Your task to perform on an android device: What's the price of the LG TV? Image 0: 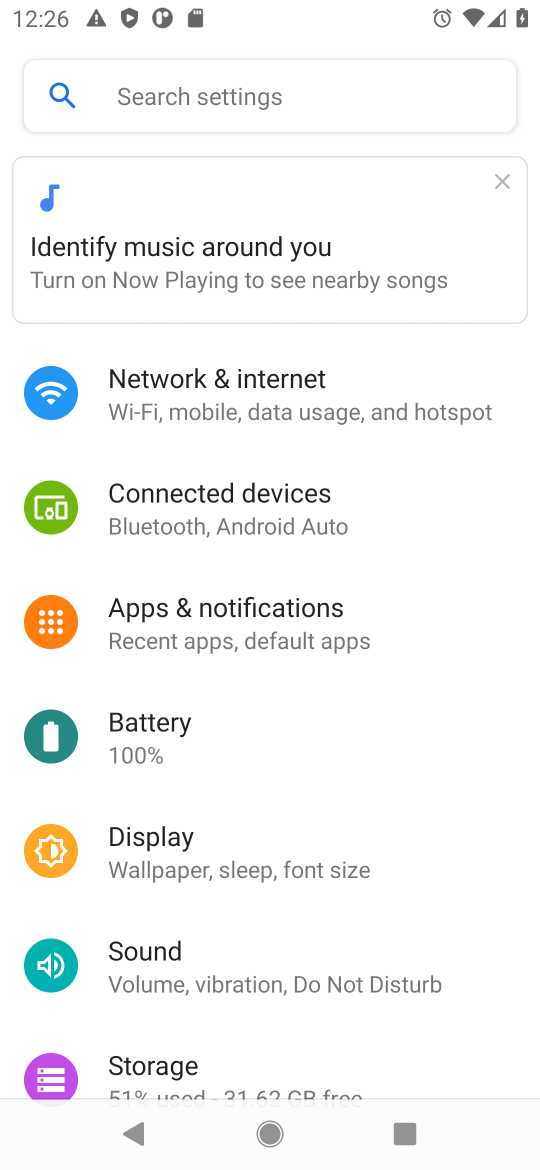
Step 0: press home button
Your task to perform on an android device: What's the price of the LG TV? Image 1: 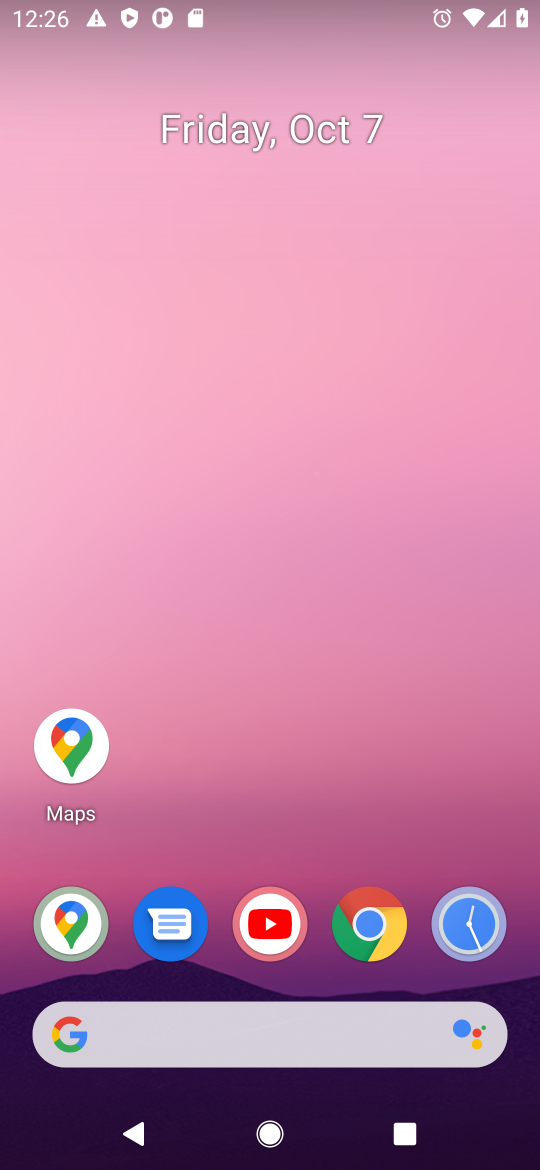
Step 1: click (371, 932)
Your task to perform on an android device: What's the price of the LG TV? Image 2: 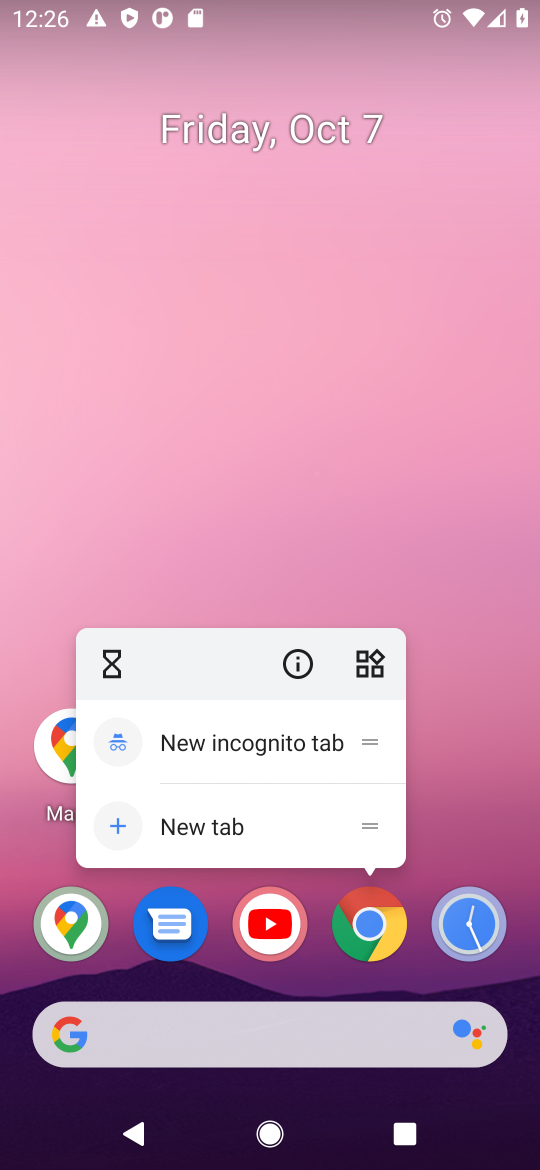
Step 2: click (371, 932)
Your task to perform on an android device: What's the price of the LG TV? Image 3: 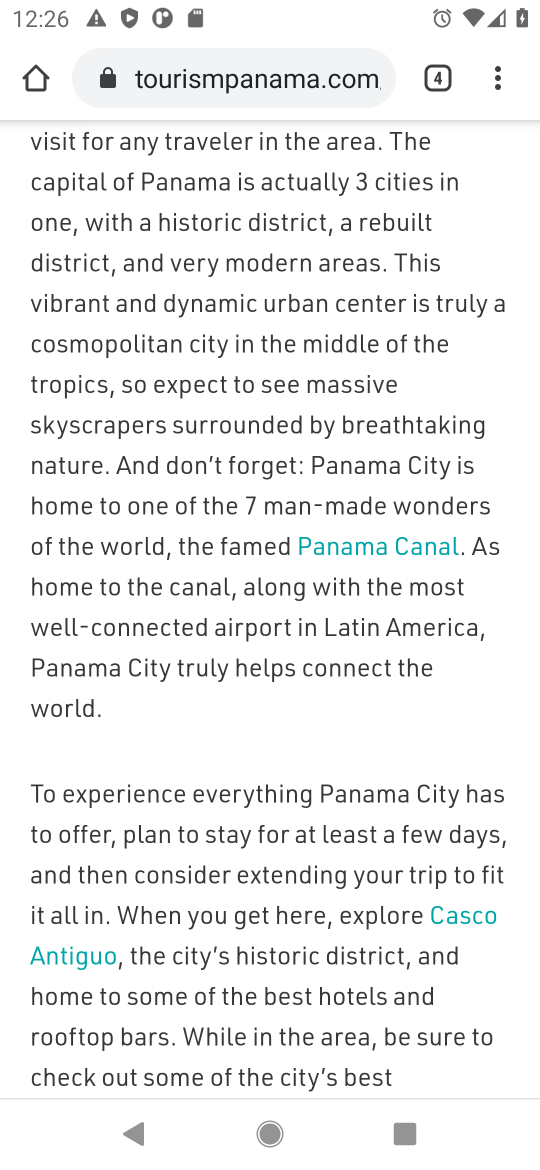
Step 3: click (317, 80)
Your task to perform on an android device: What's the price of the LG TV? Image 4: 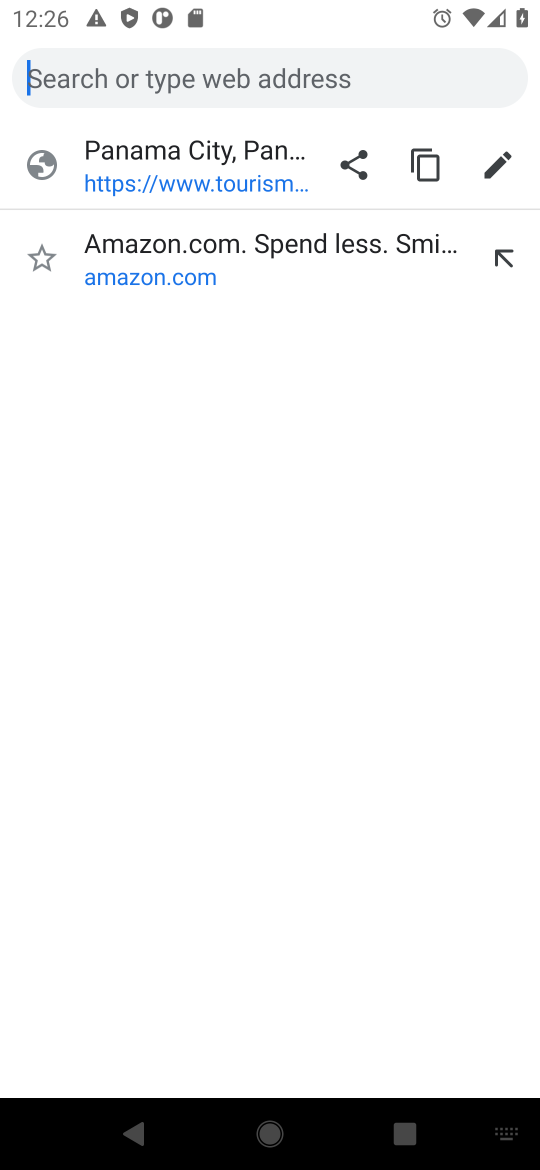
Step 4: type "price of the LG TV"
Your task to perform on an android device: What's the price of the LG TV? Image 5: 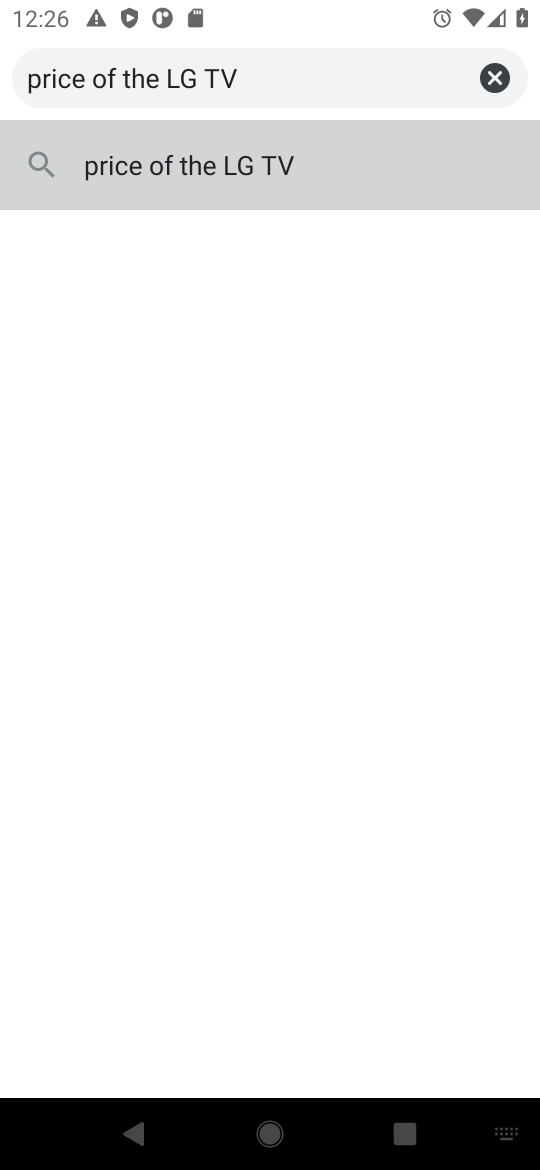
Step 5: click (236, 179)
Your task to perform on an android device: What's the price of the LG TV? Image 6: 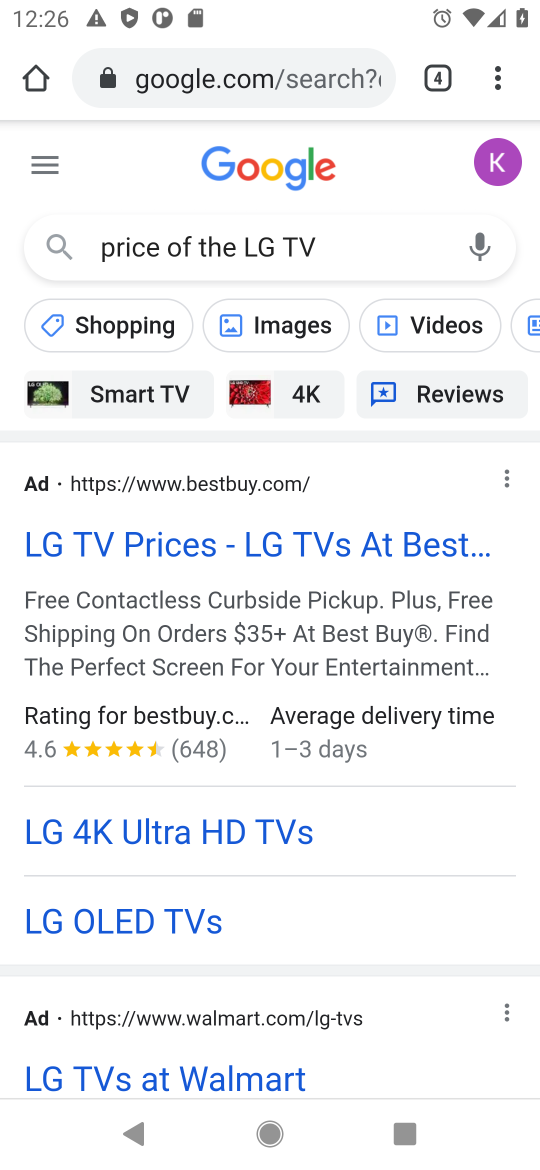
Step 6: click (279, 540)
Your task to perform on an android device: What's the price of the LG TV? Image 7: 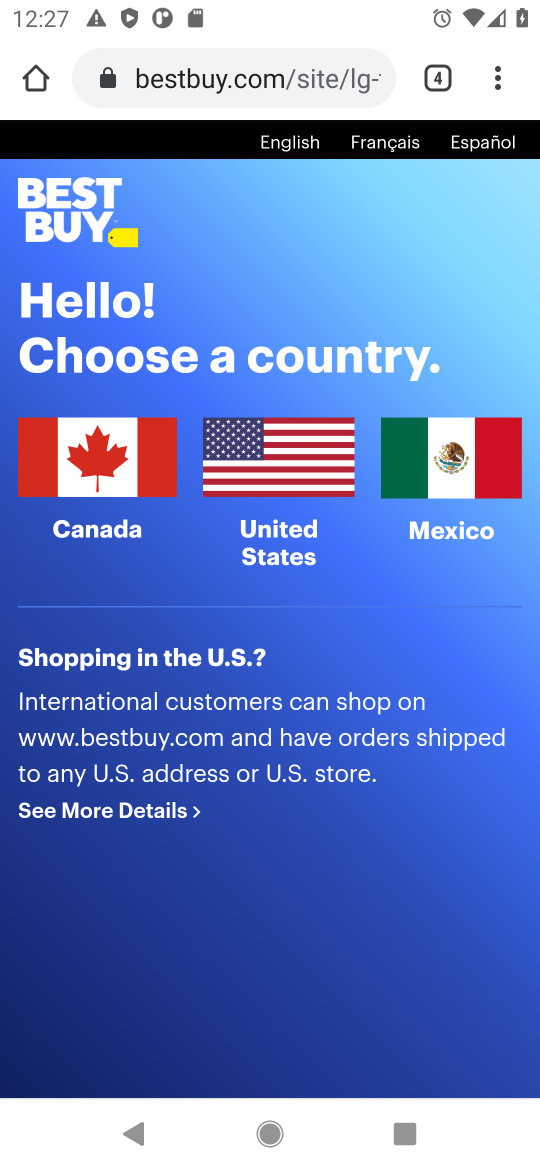
Step 7: drag from (281, 993) to (434, 205)
Your task to perform on an android device: What's the price of the LG TV? Image 8: 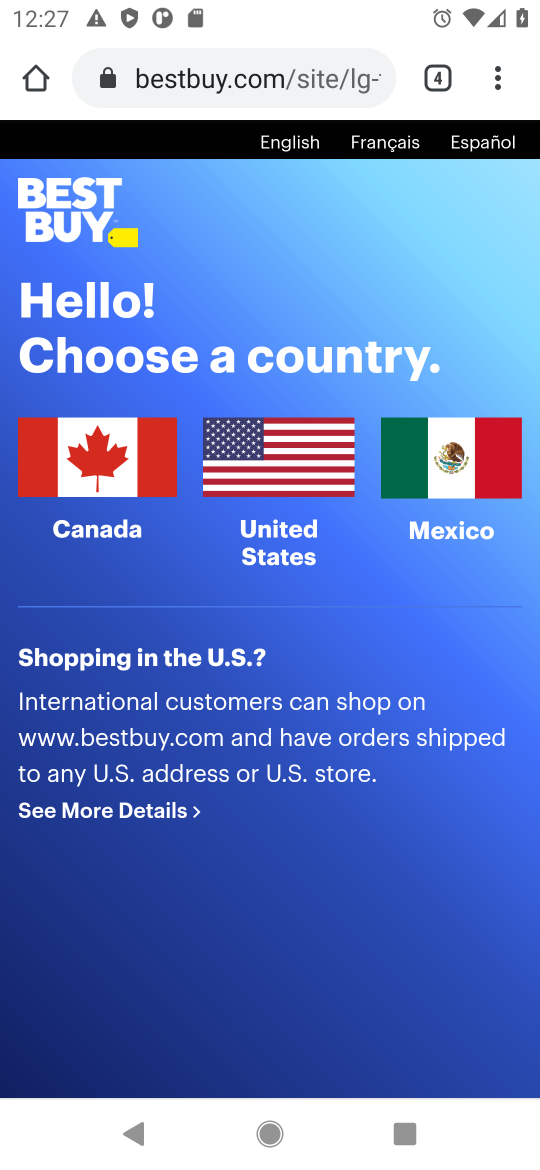
Step 8: click (275, 488)
Your task to perform on an android device: What's the price of the LG TV? Image 9: 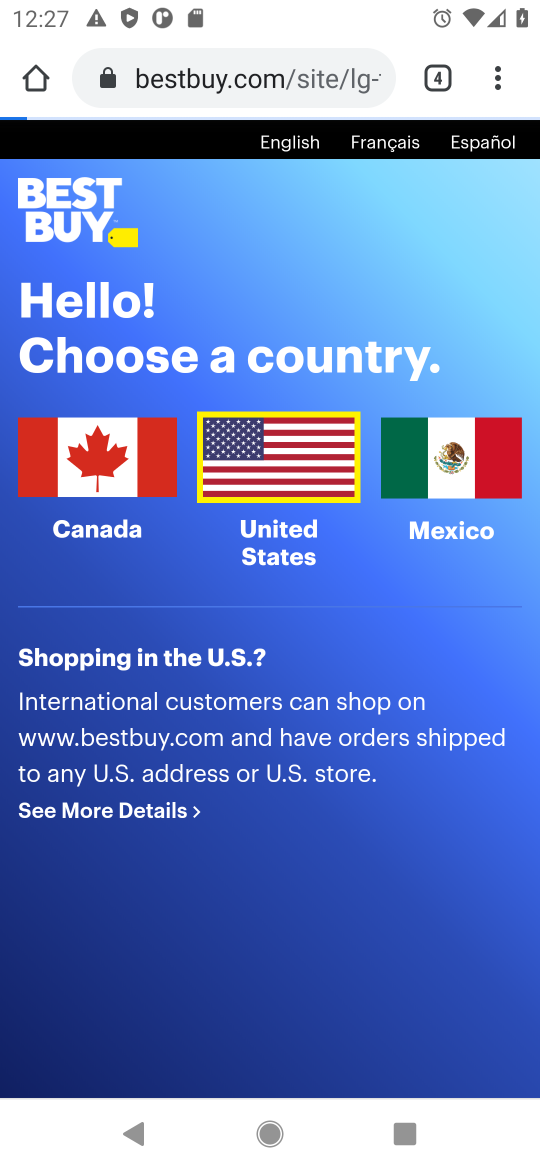
Step 9: click (274, 462)
Your task to perform on an android device: What's the price of the LG TV? Image 10: 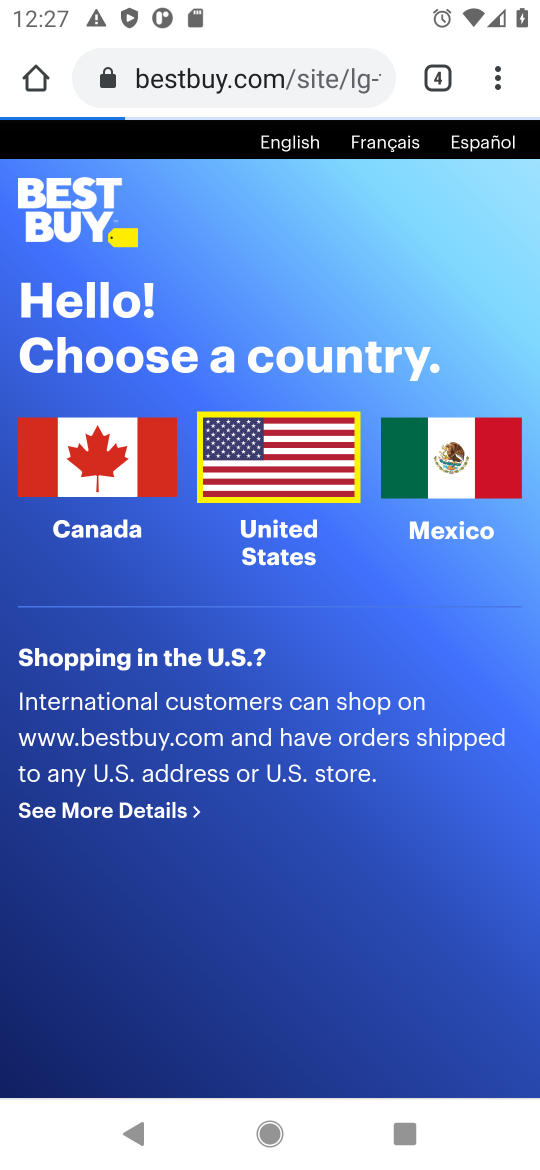
Step 10: click (262, 526)
Your task to perform on an android device: What's the price of the LG TV? Image 11: 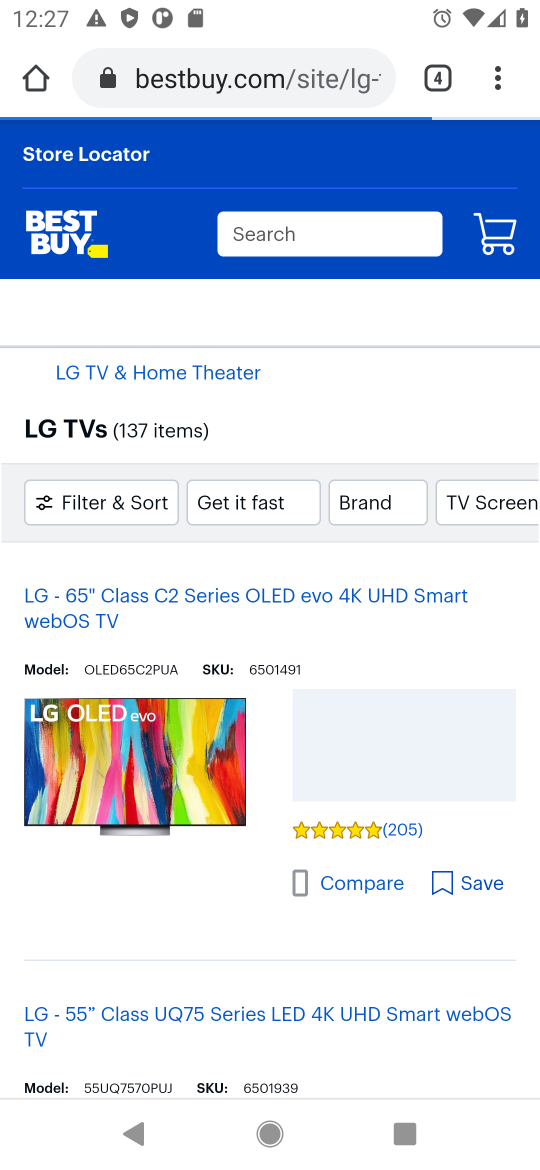
Step 11: drag from (287, 940) to (442, 285)
Your task to perform on an android device: What's the price of the LG TV? Image 12: 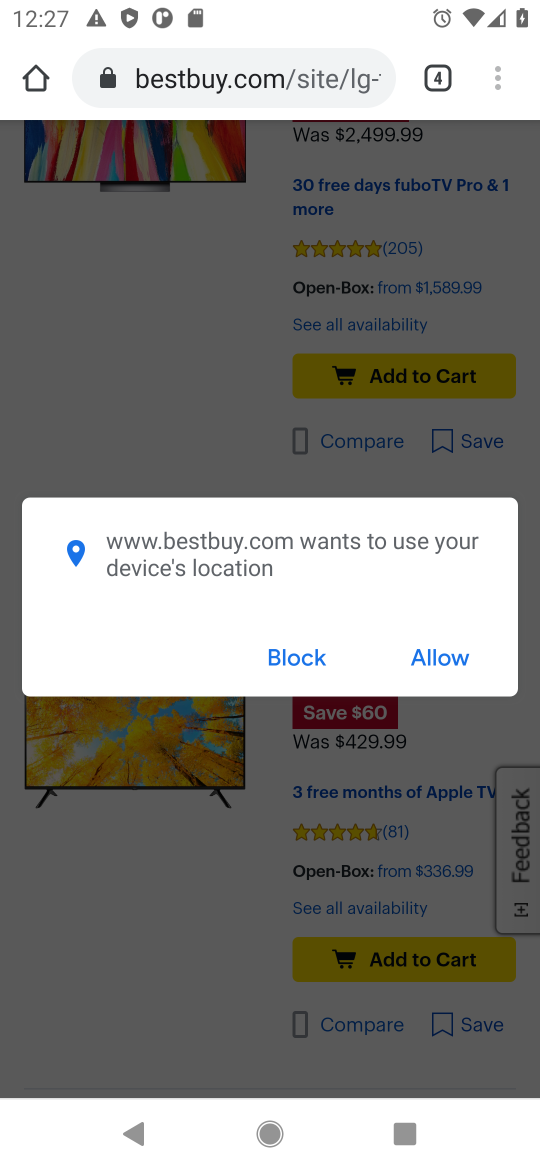
Step 12: click (317, 659)
Your task to perform on an android device: What's the price of the LG TV? Image 13: 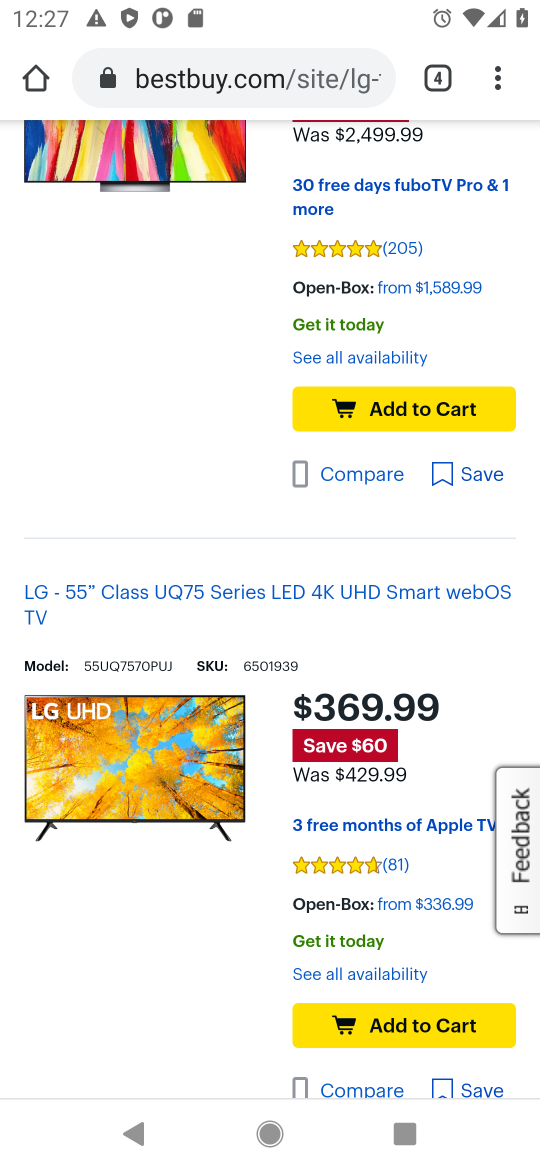
Step 13: task complete